Your task to perform on an android device: Open calendar and show me the first week of next month Image 0: 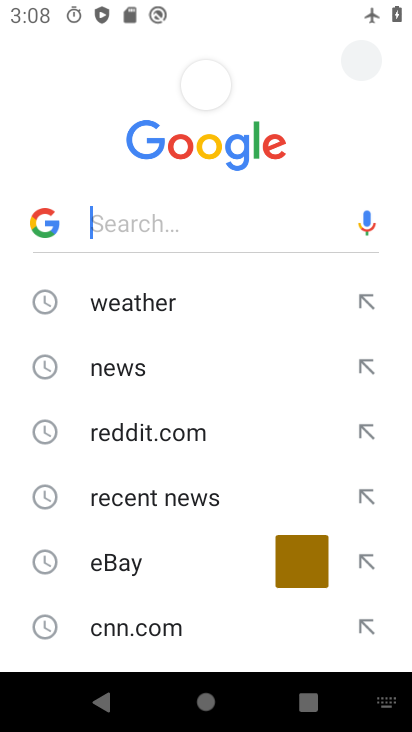
Step 0: press home button
Your task to perform on an android device: Open calendar and show me the first week of next month Image 1: 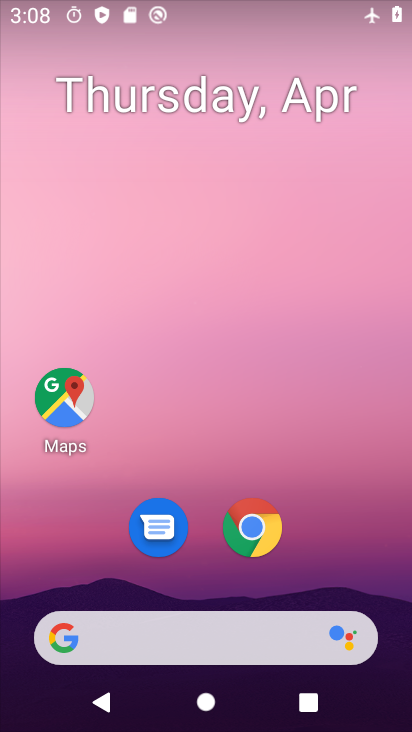
Step 1: drag from (313, 490) to (313, 128)
Your task to perform on an android device: Open calendar and show me the first week of next month Image 2: 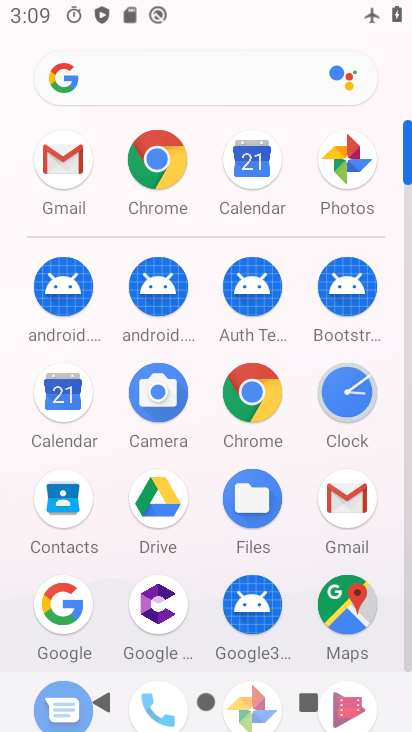
Step 2: click (61, 406)
Your task to perform on an android device: Open calendar and show me the first week of next month Image 3: 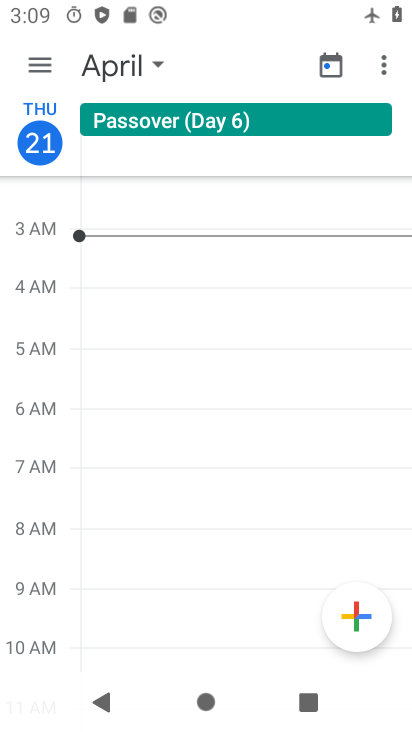
Step 3: click (127, 67)
Your task to perform on an android device: Open calendar and show me the first week of next month Image 4: 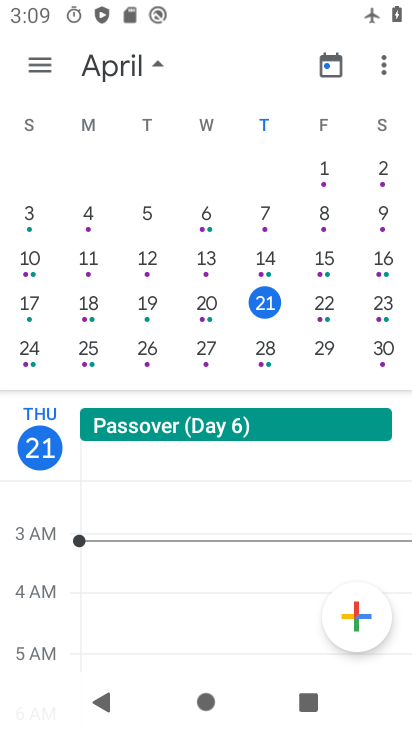
Step 4: drag from (380, 328) to (47, 315)
Your task to perform on an android device: Open calendar and show me the first week of next month Image 5: 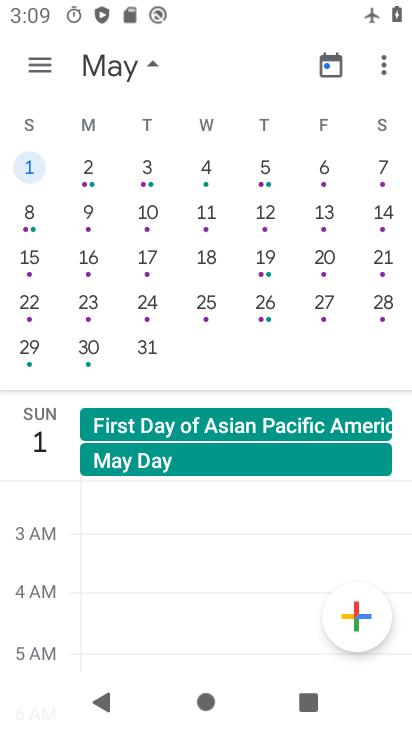
Step 5: click (32, 167)
Your task to perform on an android device: Open calendar and show me the first week of next month Image 6: 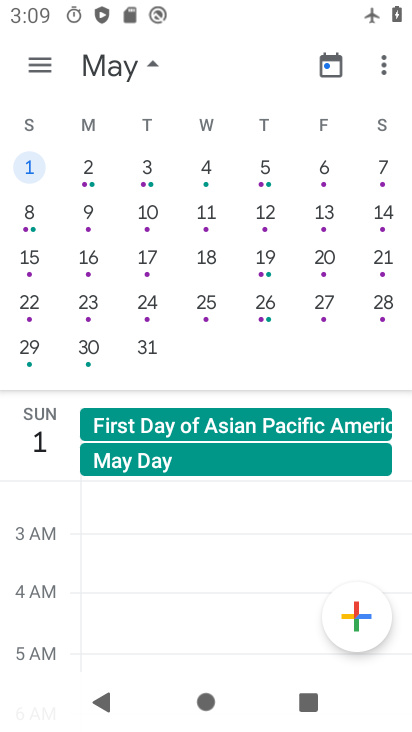
Step 6: click (85, 174)
Your task to perform on an android device: Open calendar and show me the first week of next month Image 7: 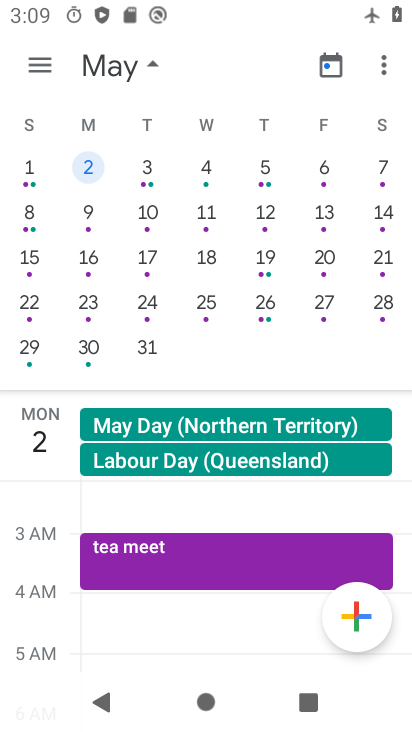
Step 7: task complete